Your task to perform on an android device: Search for the best rated headphones on amazon.com Image 0: 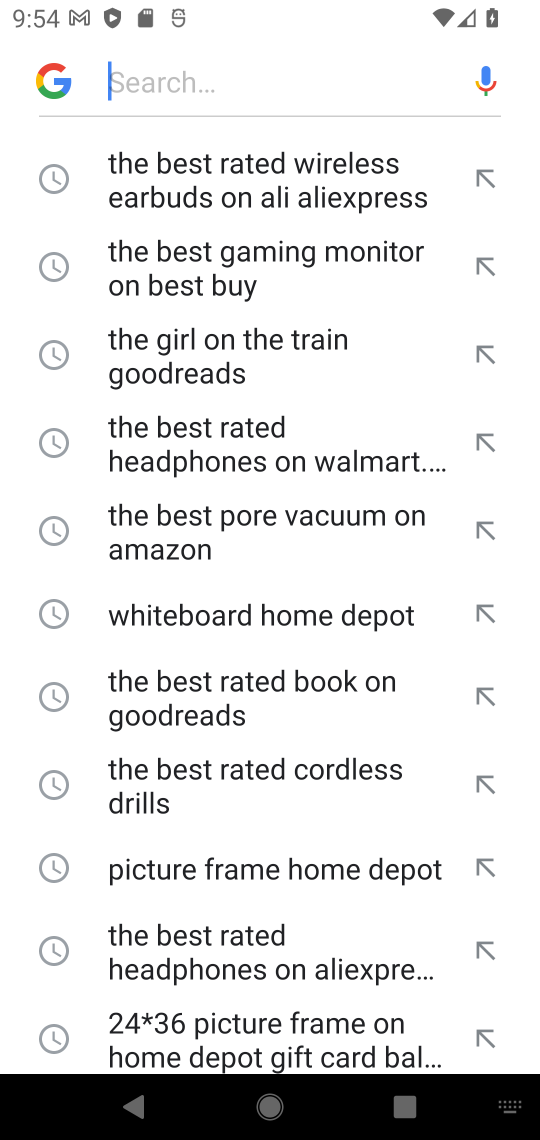
Step 0: type "the best rated headphones on amazon.com"
Your task to perform on an android device: Search for the best rated headphones on amazon.com Image 1: 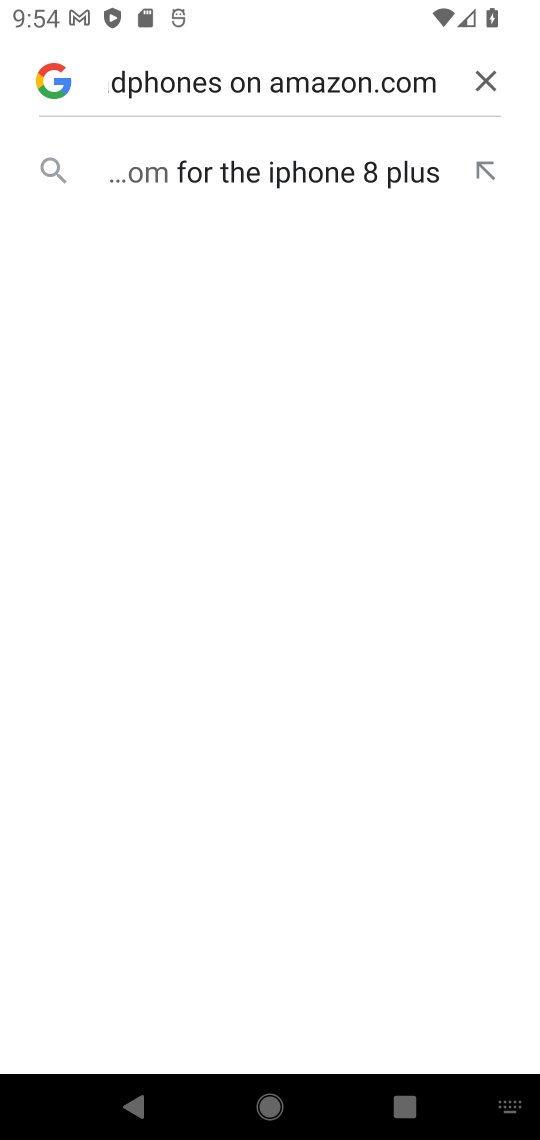
Step 1: click (257, 170)
Your task to perform on an android device: Search for the best rated headphones on amazon.com Image 2: 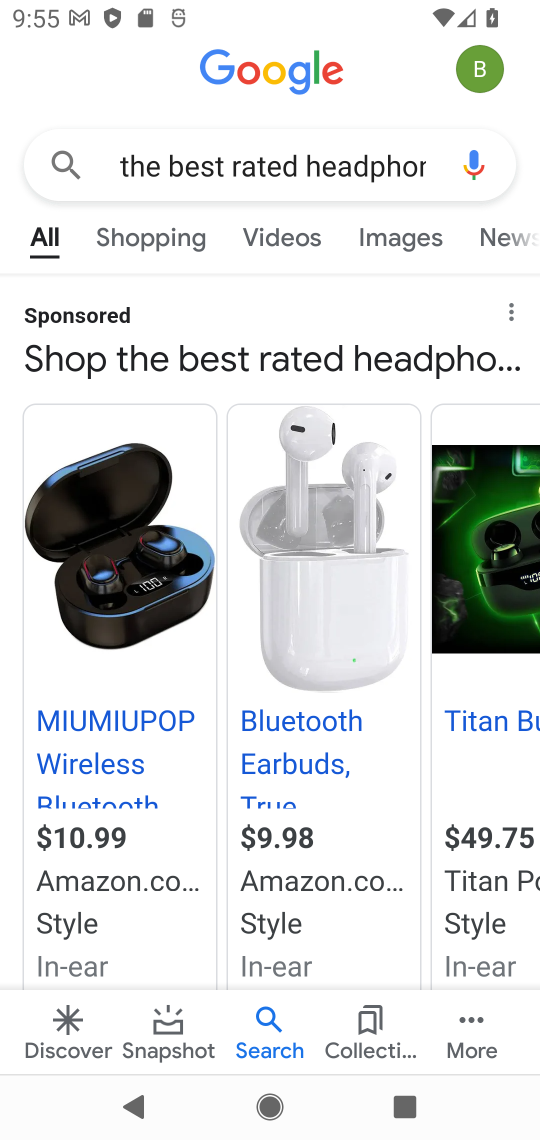
Step 2: task complete